Your task to perform on an android device: turn on notifications settings in the gmail app Image 0: 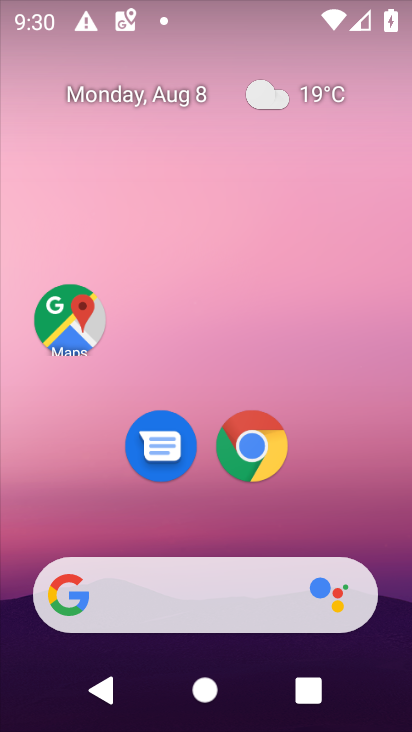
Step 0: drag from (394, 589) to (358, 172)
Your task to perform on an android device: turn on notifications settings in the gmail app Image 1: 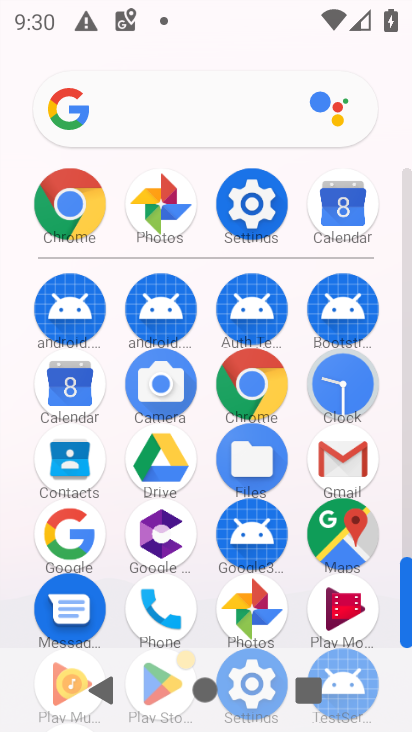
Step 1: click (341, 457)
Your task to perform on an android device: turn on notifications settings in the gmail app Image 2: 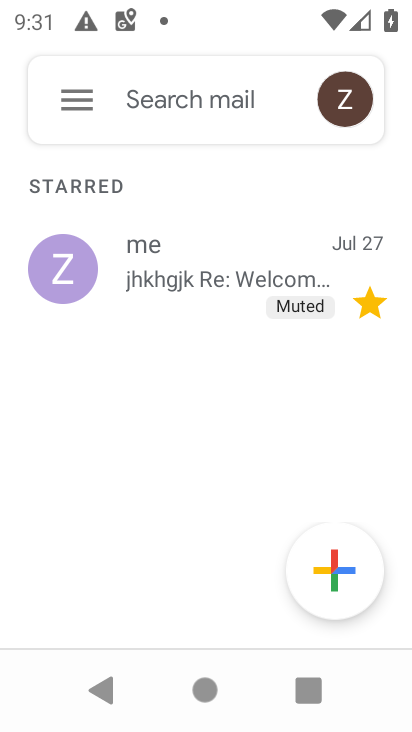
Step 2: click (83, 99)
Your task to perform on an android device: turn on notifications settings in the gmail app Image 3: 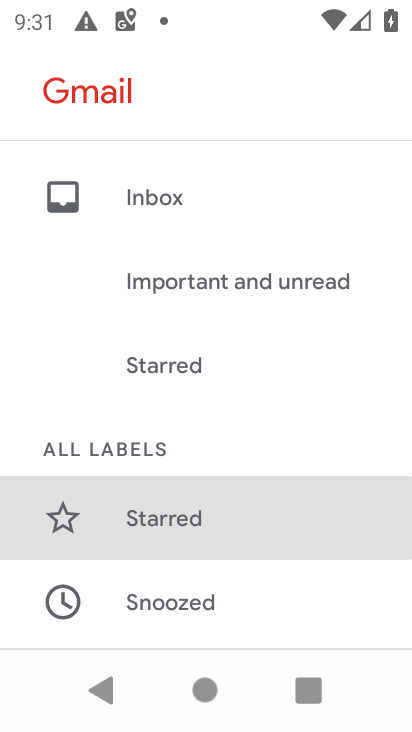
Step 3: drag from (234, 547) to (229, 194)
Your task to perform on an android device: turn on notifications settings in the gmail app Image 4: 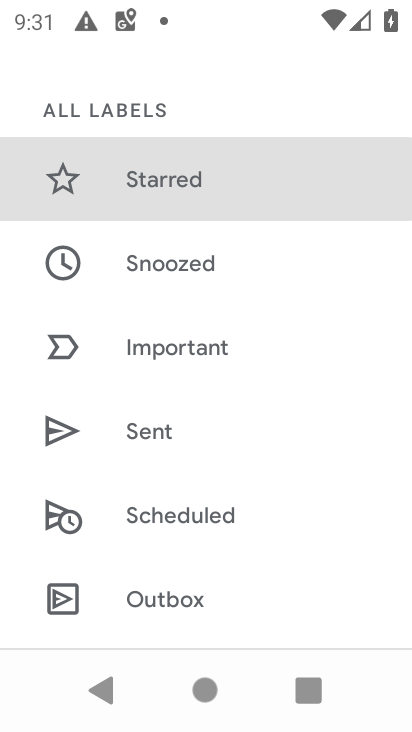
Step 4: drag from (256, 589) to (252, 194)
Your task to perform on an android device: turn on notifications settings in the gmail app Image 5: 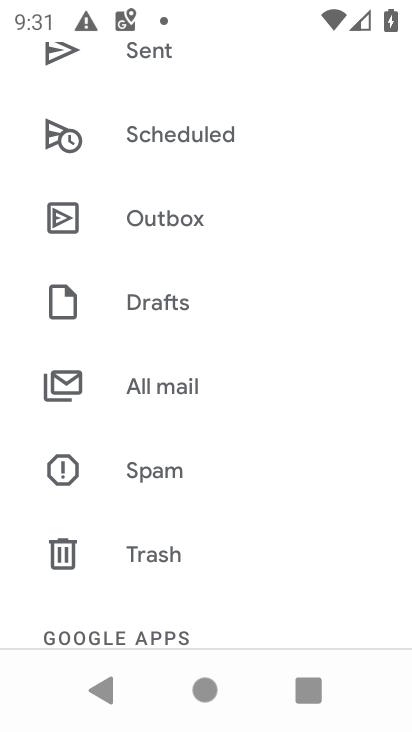
Step 5: drag from (261, 565) to (261, 254)
Your task to perform on an android device: turn on notifications settings in the gmail app Image 6: 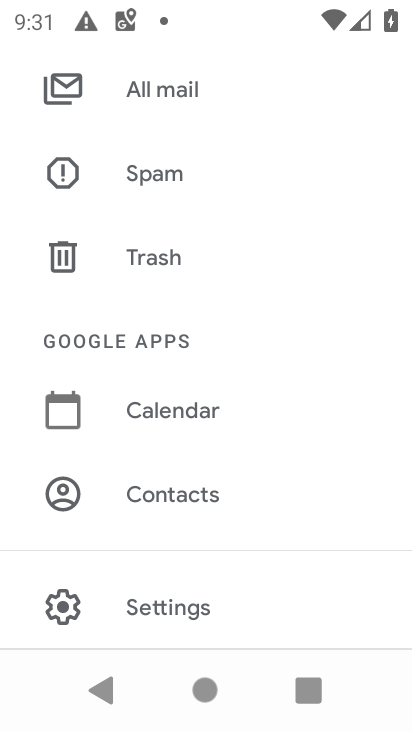
Step 6: click (142, 598)
Your task to perform on an android device: turn on notifications settings in the gmail app Image 7: 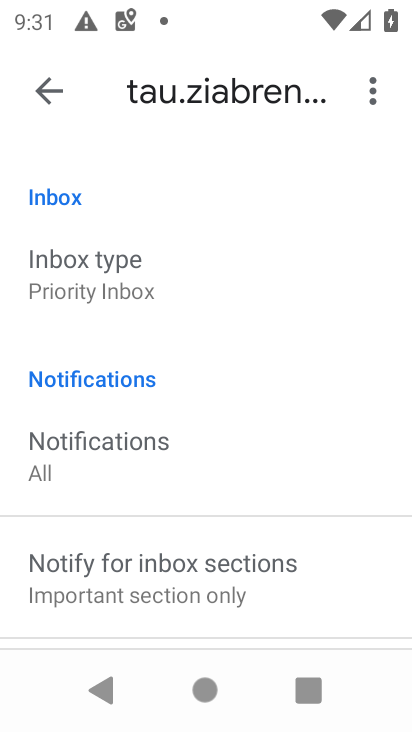
Step 7: drag from (306, 511) to (312, 222)
Your task to perform on an android device: turn on notifications settings in the gmail app Image 8: 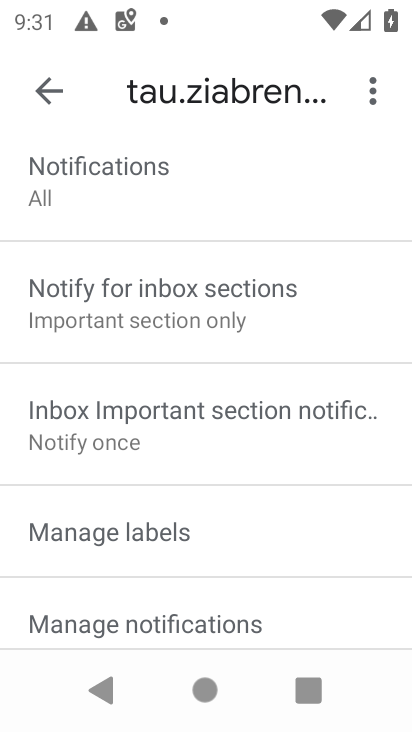
Step 8: drag from (268, 587) to (272, 287)
Your task to perform on an android device: turn on notifications settings in the gmail app Image 9: 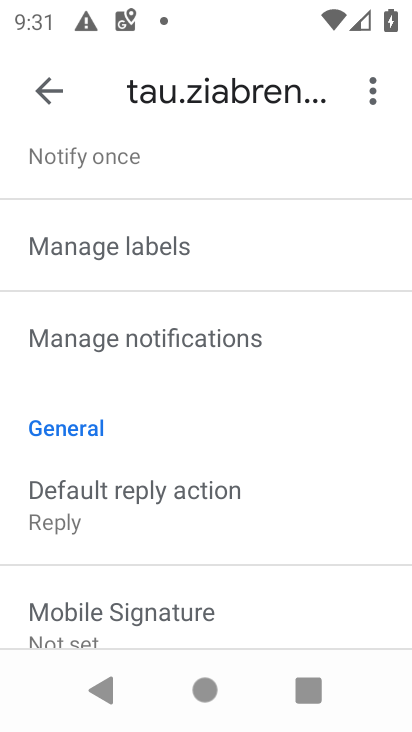
Step 9: click (134, 353)
Your task to perform on an android device: turn on notifications settings in the gmail app Image 10: 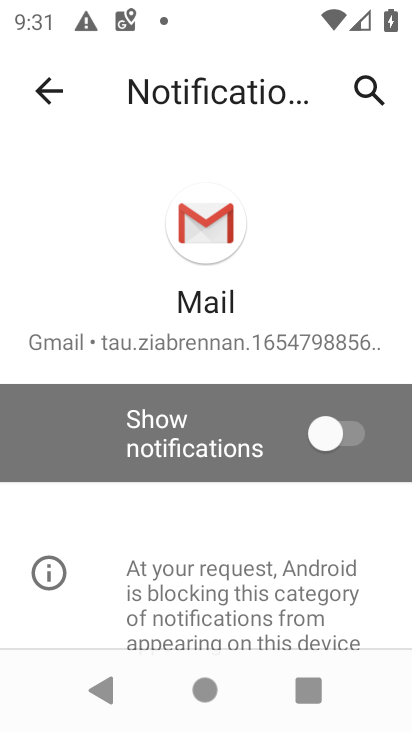
Step 10: click (353, 431)
Your task to perform on an android device: turn on notifications settings in the gmail app Image 11: 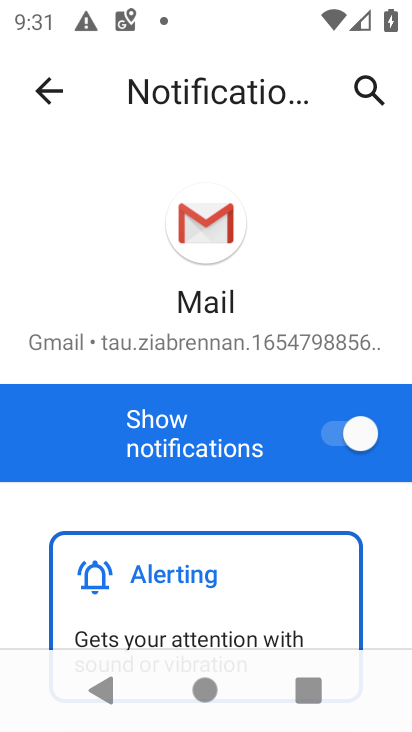
Step 11: task complete